Your task to perform on an android device: Play the last video I watched on Youtube Image 0: 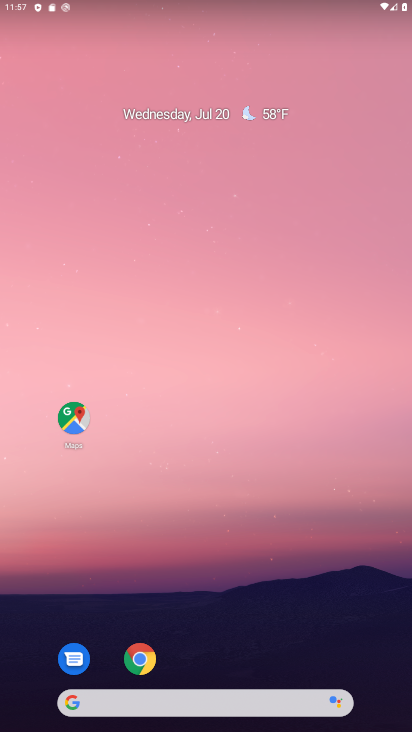
Step 0: drag from (202, 662) to (164, 180)
Your task to perform on an android device: Play the last video I watched on Youtube Image 1: 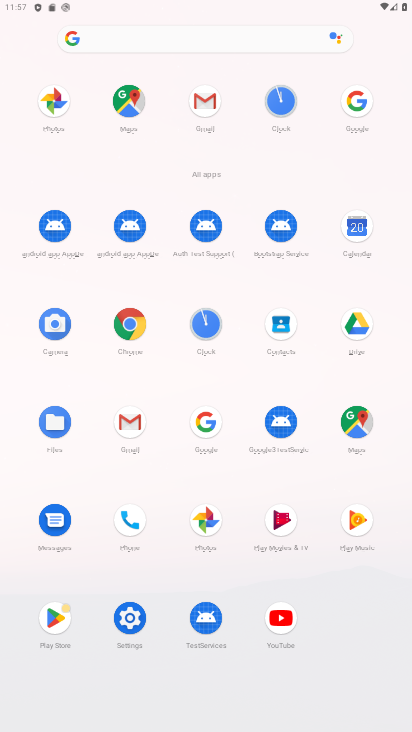
Step 1: click (273, 603)
Your task to perform on an android device: Play the last video I watched on Youtube Image 2: 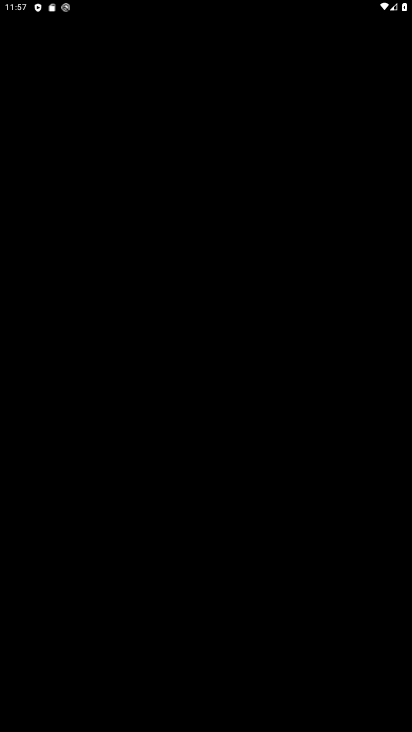
Step 2: click (357, 25)
Your task to perform on an android device: Play the last video I watched on Youtube Image 3: 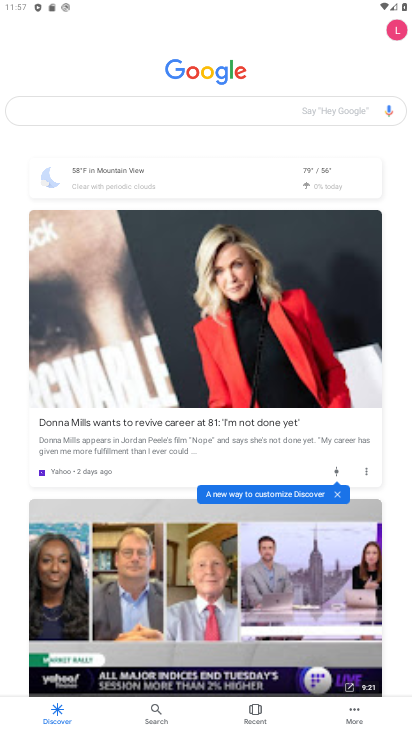
Step 3: press back button
Your task to perform on an android device: Play the last video I watched on Youtube Image 4: 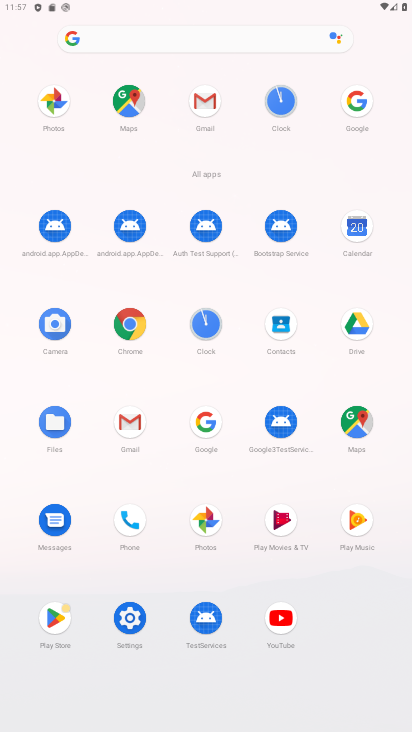
Step 4: click (277, 615)
Your task to perform on an android device: Play the last video I watched on Youtube Image 5: 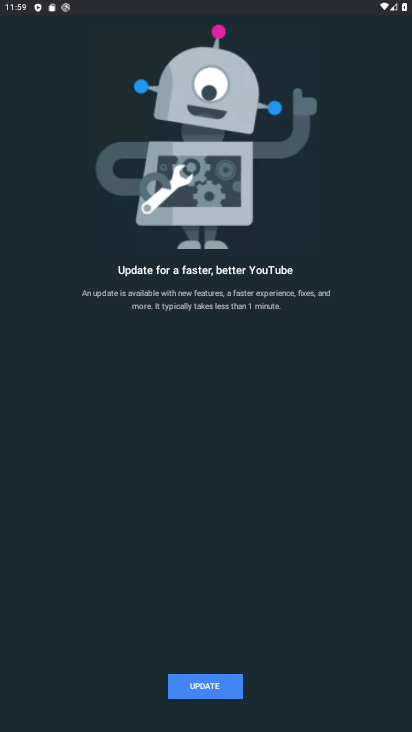
Step 5: task complete